Your task to perform on an android device: find snoozed emails in the gmail app Image 0: 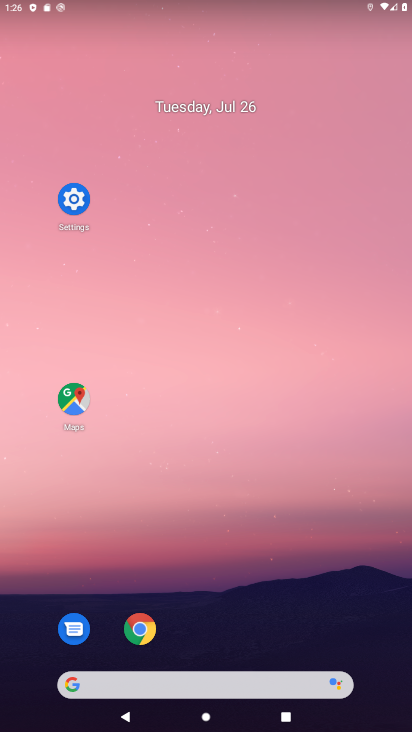
Step 0: drag from (242, 633) to (203, 194)
Your task to perform on an android device: find snoozed emails in the gmail app Image 1: 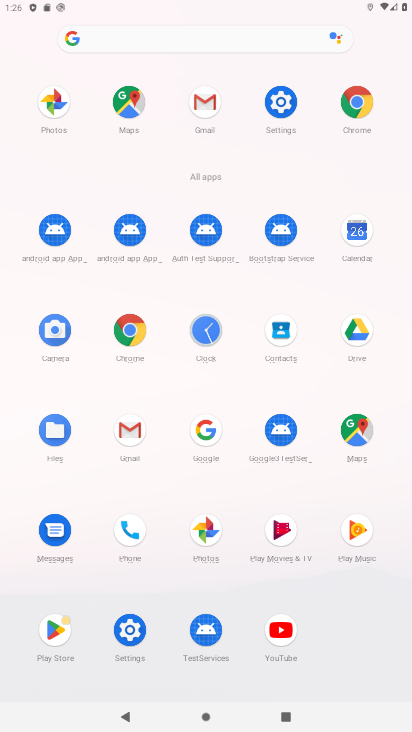
Step 1: click (213, 98)
Your task to perform on an android device: find snoozed emails in the gmail app Image 2: 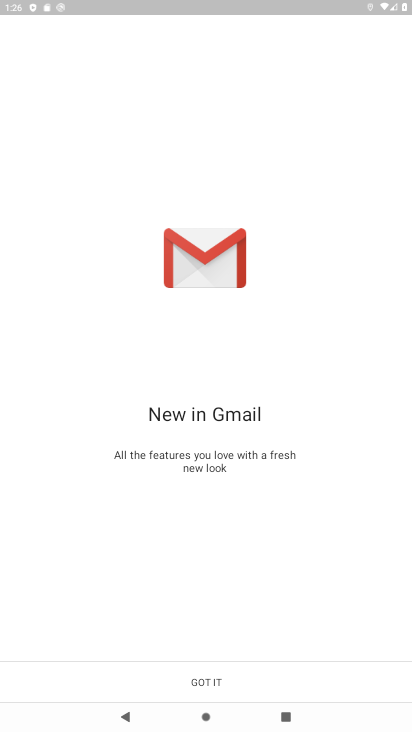
Step 2: click (208, 681)
Your task to perform on an android device: find snoozed emails in the gmail app Image 3: 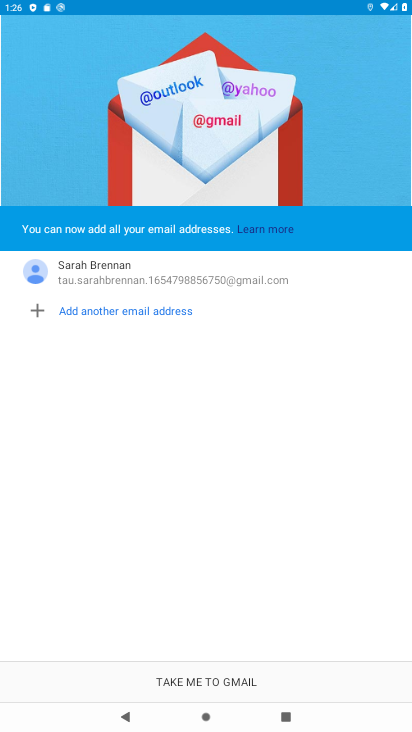
Step 3: click (177, 680)
Your task to perform on an android device: find snoozed emails in the gmail app Image 4: 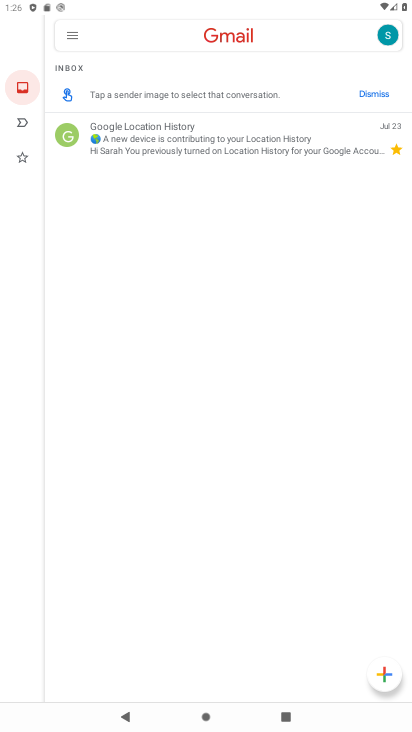
Step 4: click (67, 37)
Your task to perform on an android device: find snoozed emails in the gmail app Image 5: 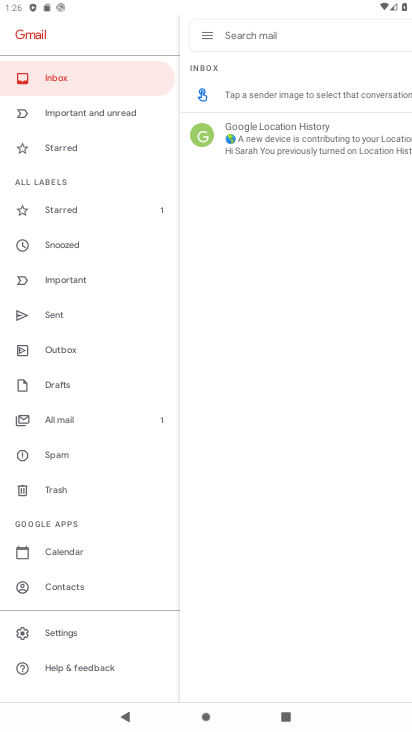
Step 5: click (86, 247)
Your task to perform on an android device: find snoozed emails in the gmail app Image 6: 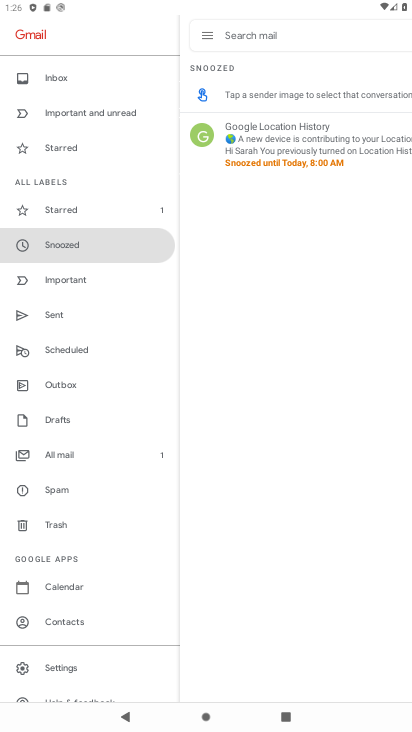
Step 6: task complete